Your task to perform on an android device: Find coffee shops on Maps Image 0: 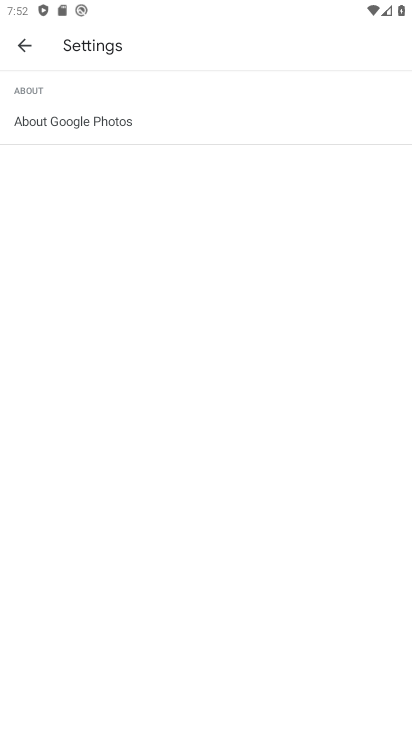
Step 0: press home button
Your task to perform on an android device: Find coffee shops on Maps Image 1: 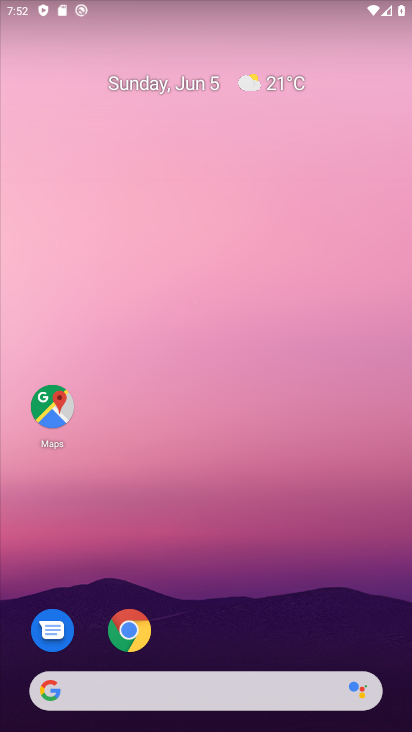
Step 1: click (54, 405)
Your task to perform on an android device: Find coffee shops on Maps Image 2: 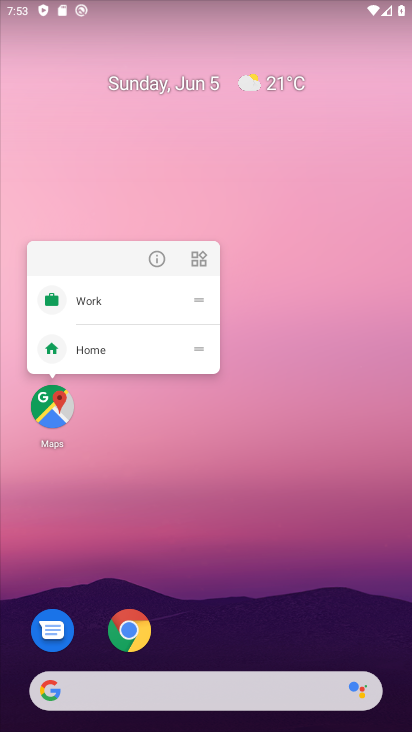
Step 2: click (58, 407)
Your task to perform on an android device: Find coffee shops on Maps Image 3: 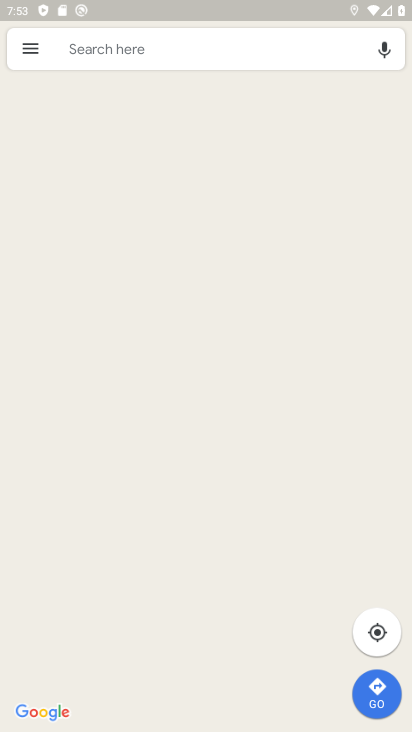
Step 3: click (182, 57)
Your task to perform on an android device: Find coffee shops on Maps Image 4: 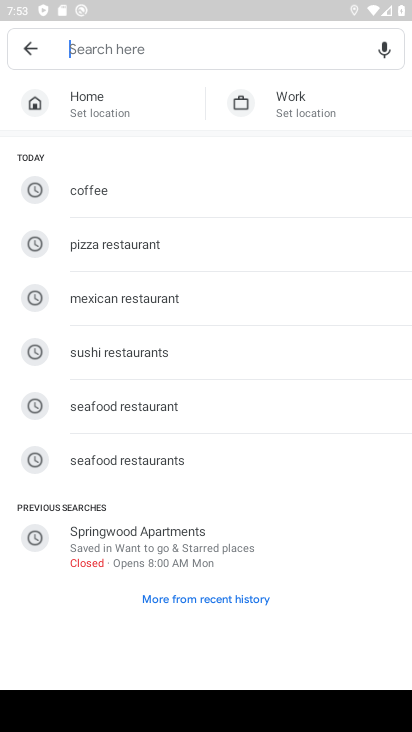
Step 4: type "coffee shops"
Your task to perform on an android device: Find coffee shops on Maps Image 5: 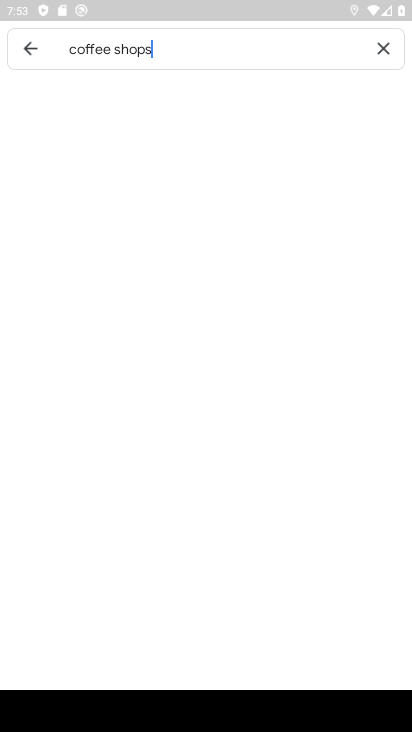
Step 5: type ""
Your task to perform on an android device: Find coffee shops on Maps Image 6: 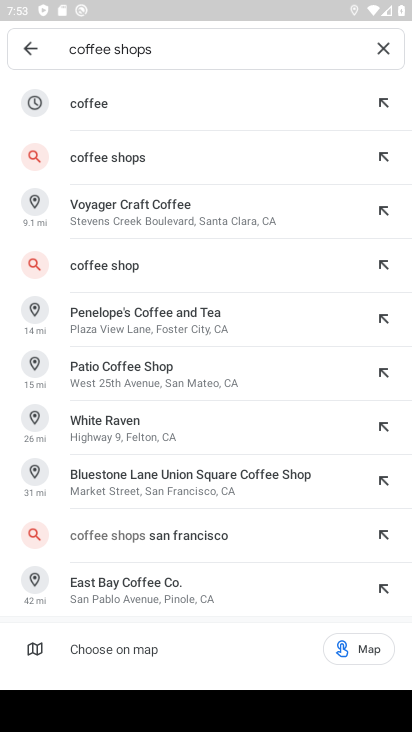
Step 6: click (217, 144)
Your task to perform on an android device: Find coffee shops on Maps Image 7: 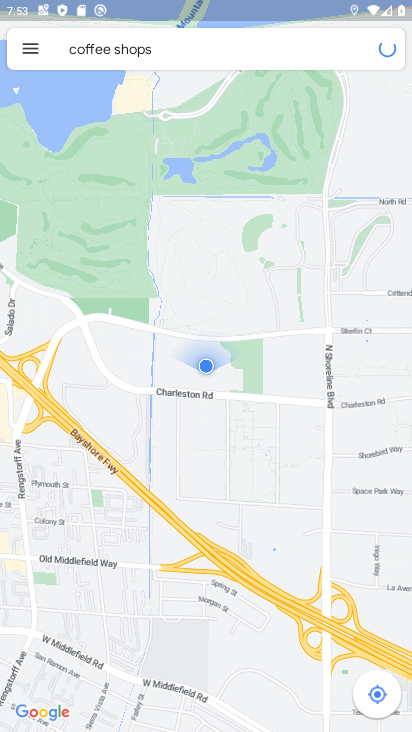
Step 7: task complete